Your task to perform on an android device: Search for vegetarian restaurants on Maps Image 0: 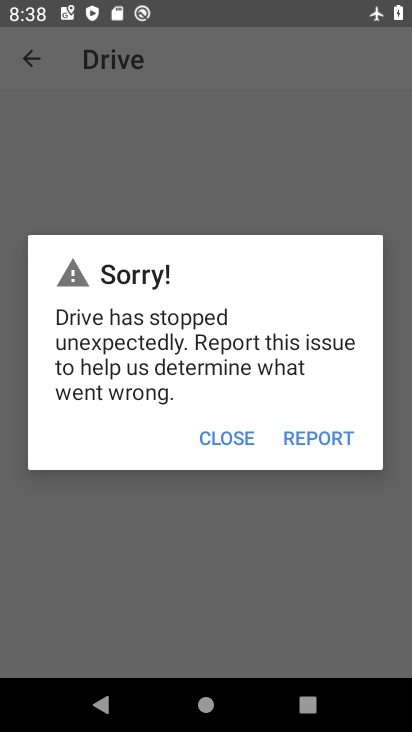
Step 0: press home button
Your task to perform on an android device: Search for vegetarian restaurants on Maps Image 1: 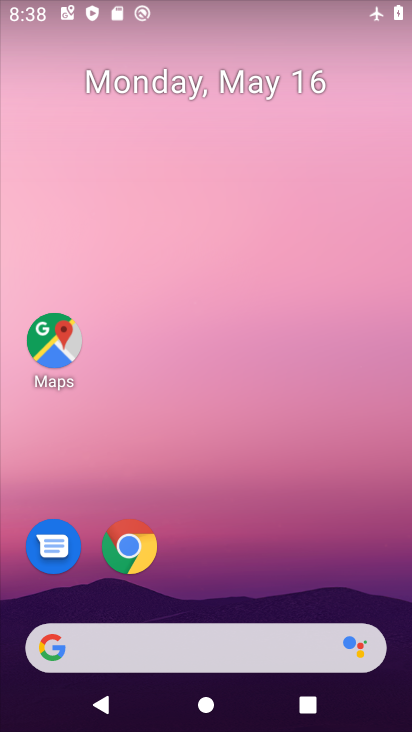
Step 1: drag from (267, 671) to (288, 147)
Your task to perform on an android device: Search for vegetarian restaurants on Maps Image 2: 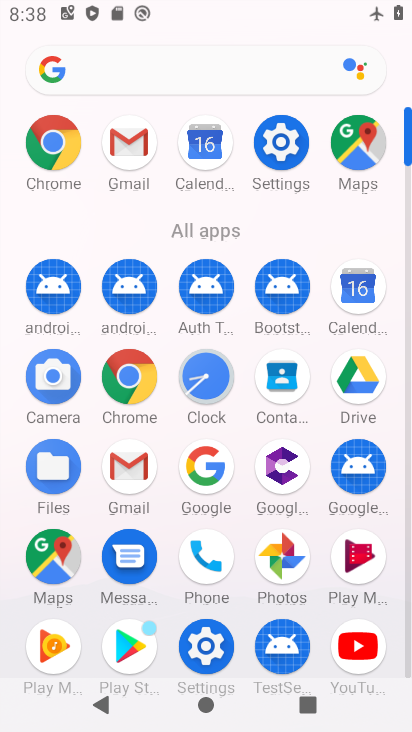
Step 2: click (338, 159)
Your task to perform on an android device: Search for vegetarian restaurants on Maps Image 3: 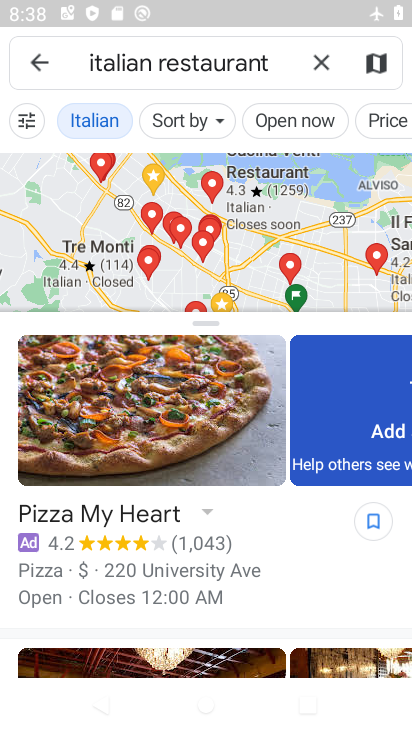
Step 3: click (316, 69)
Your task to perform on an android device: Search for vegetarian restaurants on Maps Image 4: 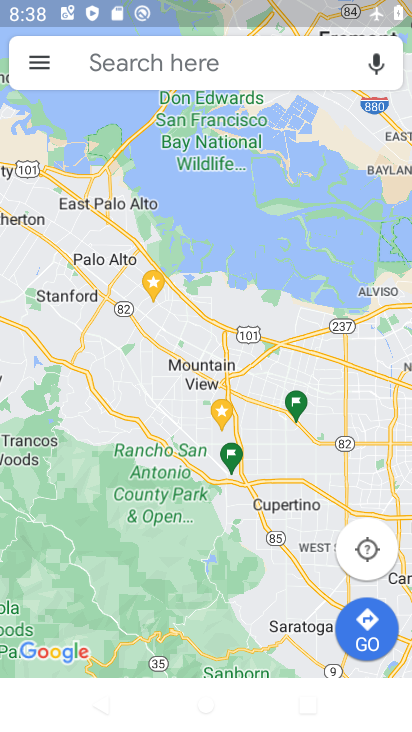
Step 4: click (158, 66)
Your task to perform on an android device: Search for vegetarian restaurants on Maps Image 5: 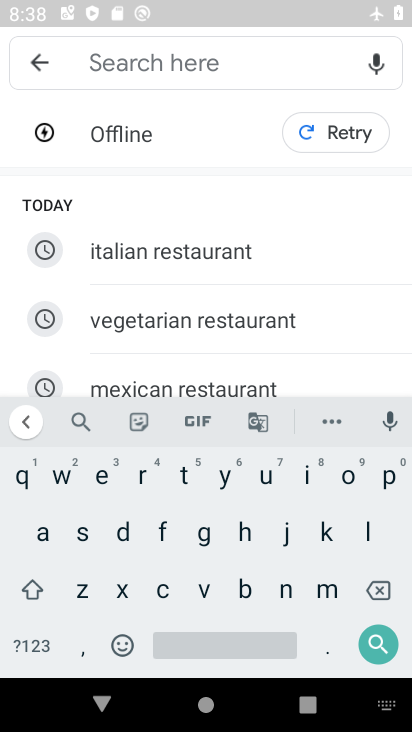
Step 5: click (184, 311)
Your task to perform on an android device: Search for vegetarian restaurants on Maps Image 6: 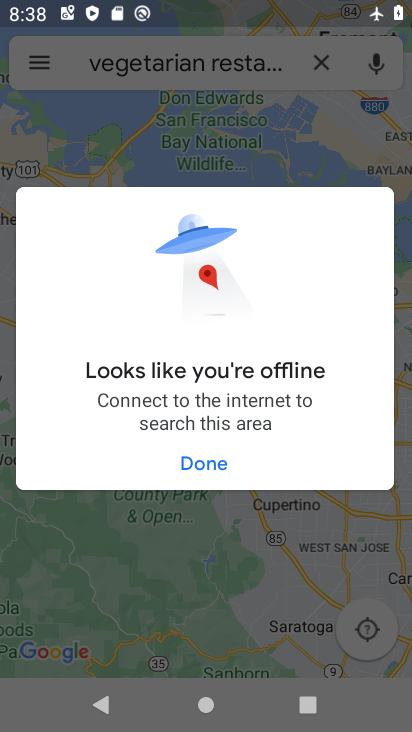
Step 6: click (203, 473)
Your task to perform on an android device: Search for vegetarian restaurants on Maps Image 7: 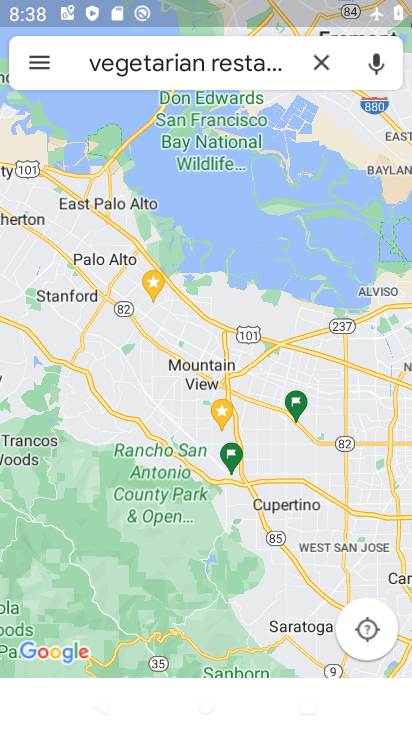
Step 7: click (216, 371)
Your task to perform on an android device: Search for vegetarian restaurants on Maps Image 8: 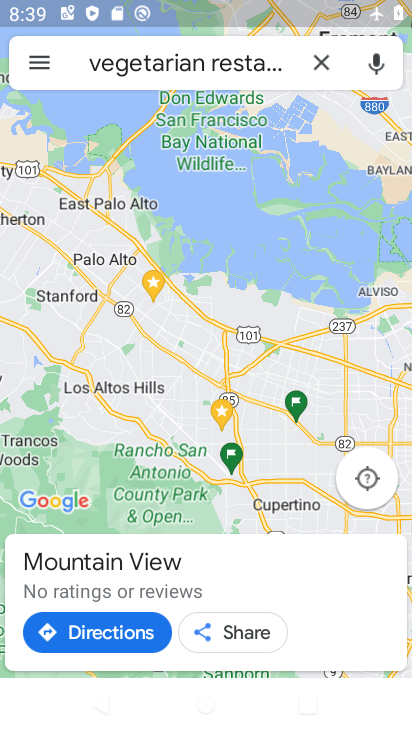
Step 8: task complete